Your task to perform on an android device: Add "dell xps" to the cart on newegg.com Image 0: 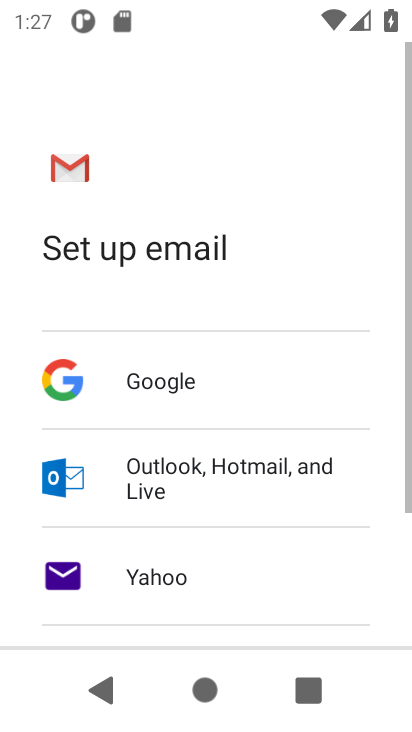
Step 0: press home button
Your task to perform on an android device: Add "dell xps" to the cart on newegg.com Image 1: 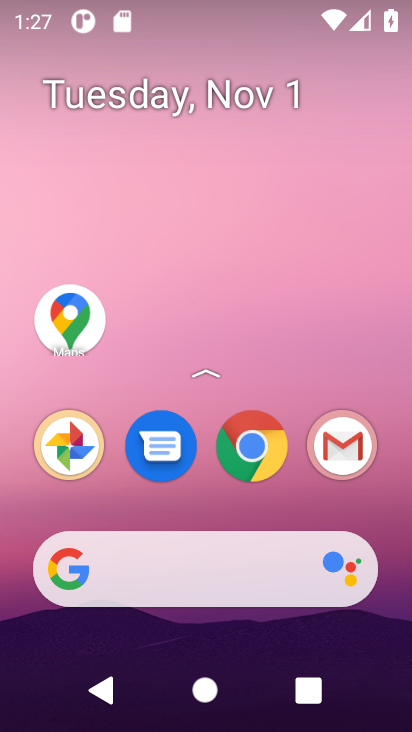
Step 1: click (252, 446)
Your task to perform on an android device: Add "dell xps" to the cart on newegg.com Image 2: 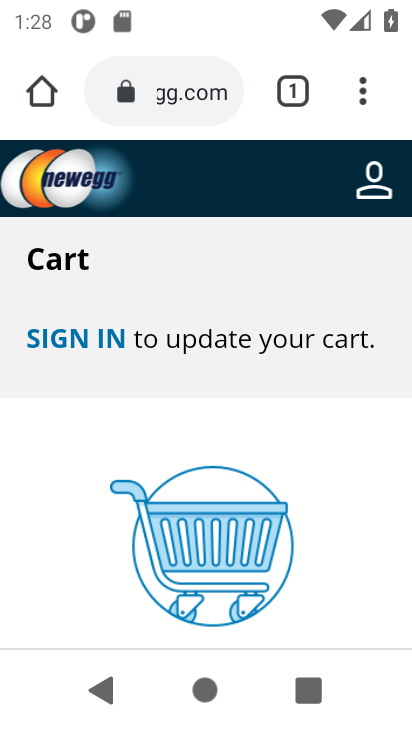
Step 2: drag from (257, 250) to (258, 386)
Your task to perform on an android device: Add "dell xps" to the cart on newegg.com Image 3: 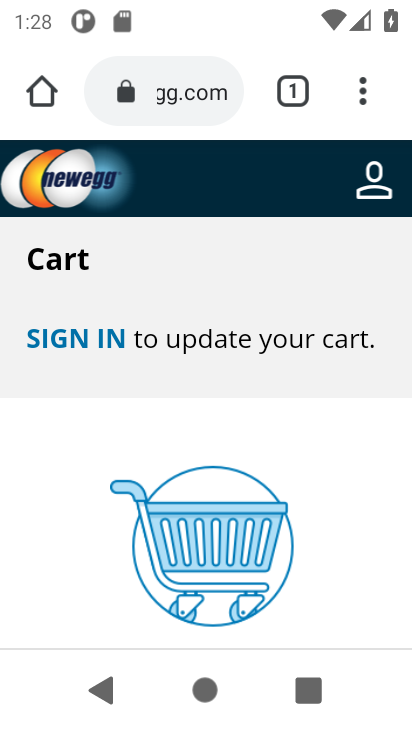
Step 3: drag from (242, 524) to (220, 256)
Your task to perform on an android device: Add "dell xps" to the cart on newegg.com Image 4: 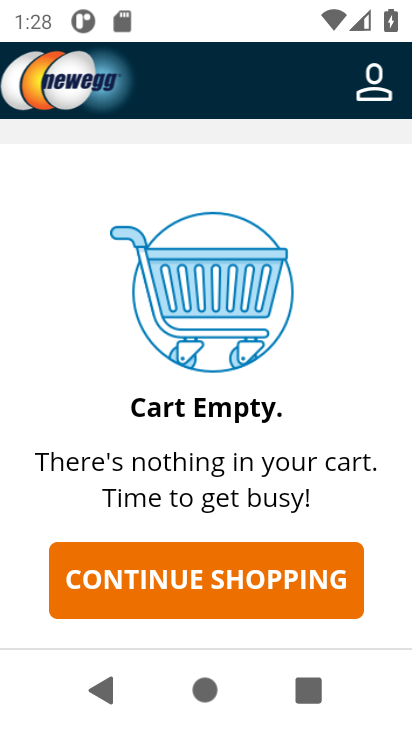
Step 4: click (189, 587)
Your task to perform on an android device: Add "dell xps" to the cart on newegg.com Image 5: 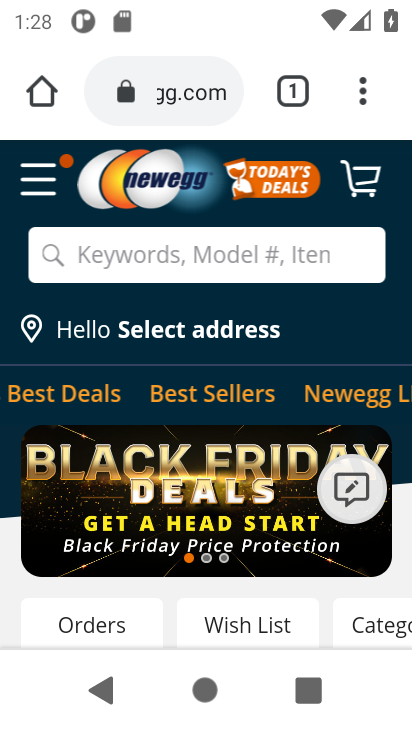
Step 5: click (115, 245)
Your task to perform on an android device: Add "dell xps" to the cart on newegg.com Image 6: 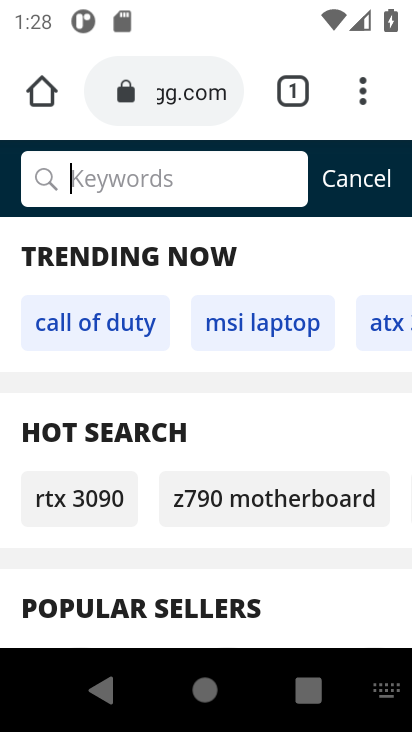
Step 6: type "dell xps"
Your task to perform on an android device: Add "dell xps" to the cart on newegg.com Image 7: 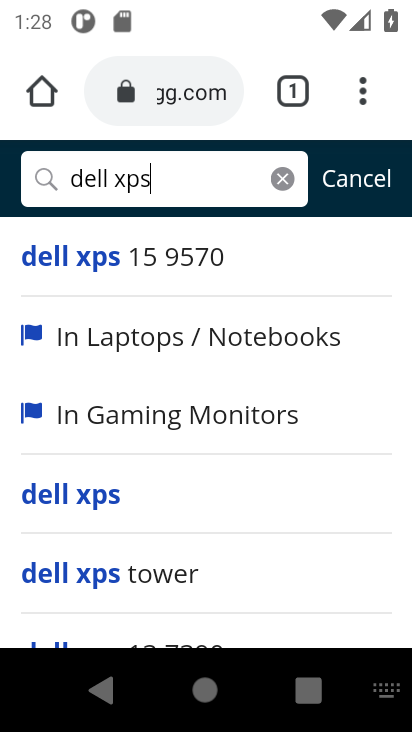
Step 7: click (70, 489)
Your task to perform on an android device: Add "dell xps" to the cart on newegg.com Image 8: 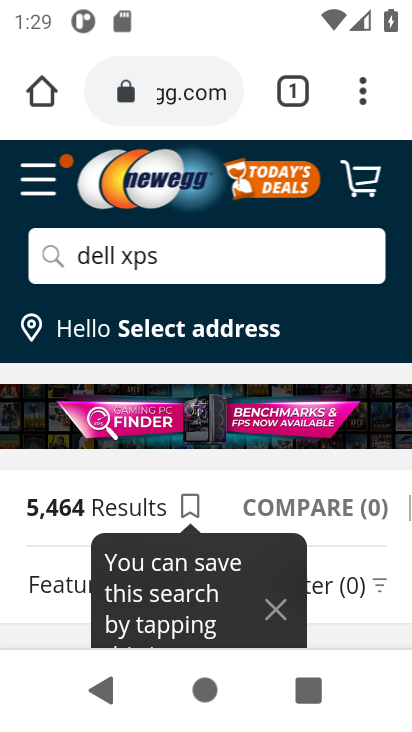
Step 8: drag from (221, 465) to (197, 68)
Your task to perform on an android device: Add "dell xps" to the cart on newegg.com Image 9: 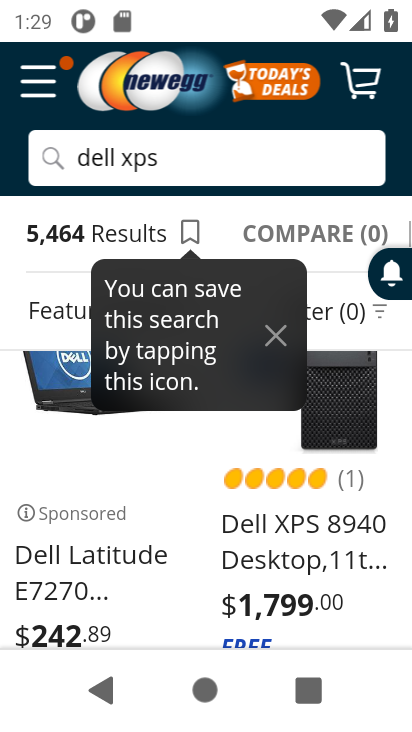
Step 9: drag from (192, 616) to (173, 267)
Your task to perform on an android device: Add "dell xps" to the cart on newegg.com Image 10: 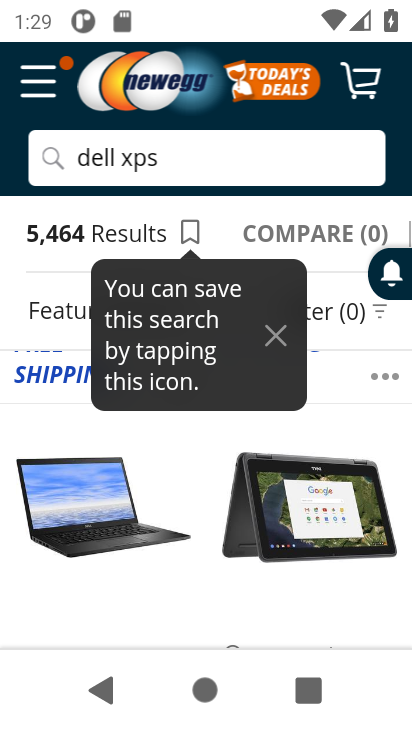
Step 10: drag from (190, 592) to (192, 159)
Your task to perform on an android device: Add "dell xps" to the cart on newegg.com Image 11: 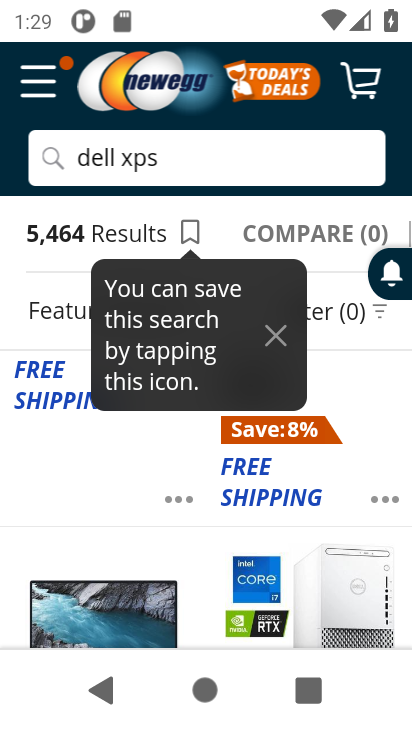
Step 11: click (280, 336)
Your task to perform on an android device: Add "dell xps" to the cart on newegg.com Image 12: 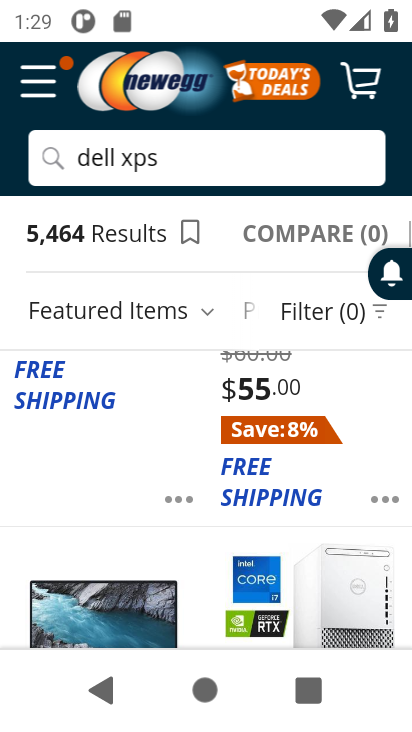
Step 12: click (181, 379)
Your task to perform on an android device: Add "dell xps" to the cart on newegg.com Image 13: 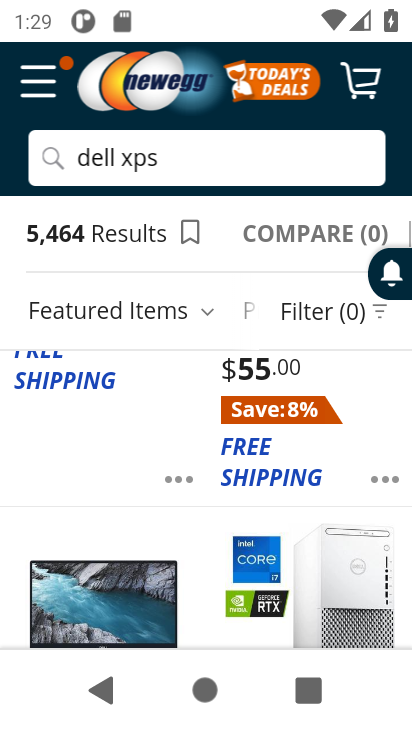
Step 13: drag from (188, 628) to (179, 327)
Your task to perform on an android device: Add "dell xps" to the cart on newegg.com Image 14: 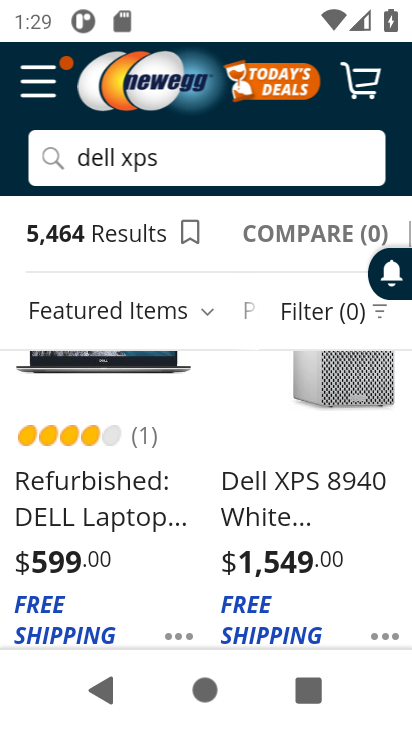
Step 14: click (287, 484)
Your task to perform on an android device: Add "dell xps" to the cart on newegg.com Image 15: 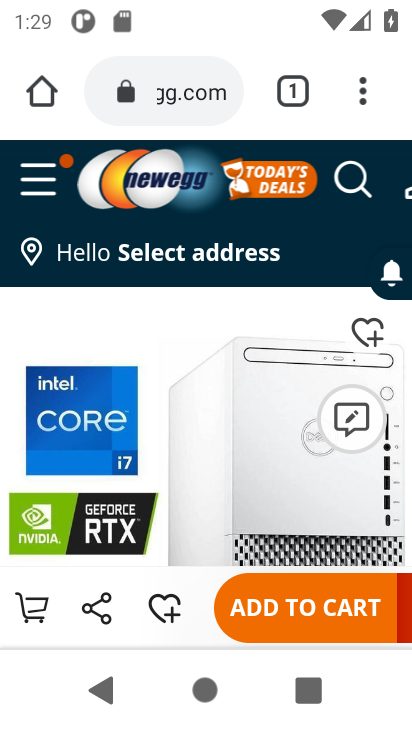
Step 15: drag from (205, 485) to (177, 210)
Your task to perform on an android device: Add "dell xps" to the cart on newegg.com Image 16: 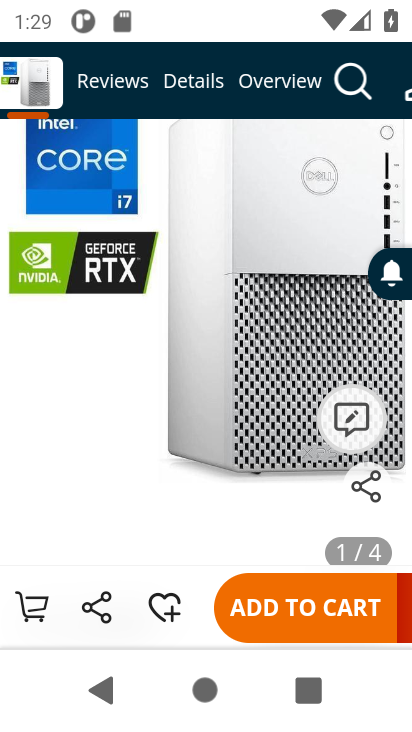
Step 16: drag from (183, 536) to (178, 398)
Your task to perform on an android device: Add "dell xps" to the cart on newegg.com Image 17: 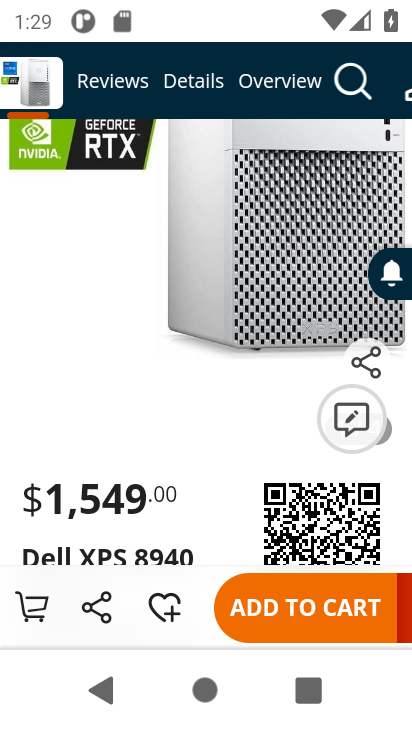
Step 17: click (290, 612)
Your task to perform on an android device: Add "dell xps" to the cart on newegg.com Image 18: 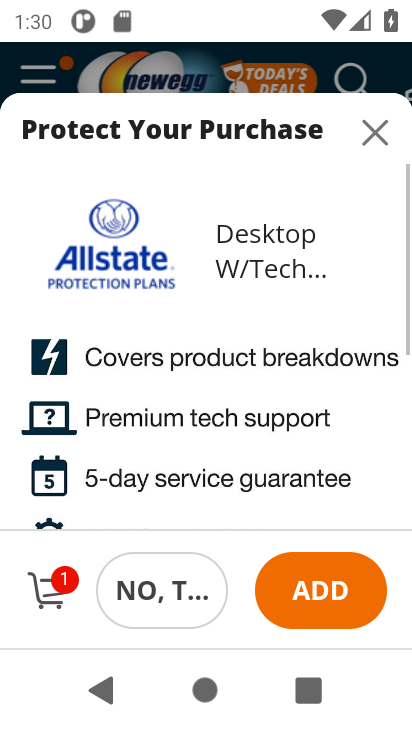
Step 18: task complete